Your task to perform on an android device: Go to notification settings Image 0: 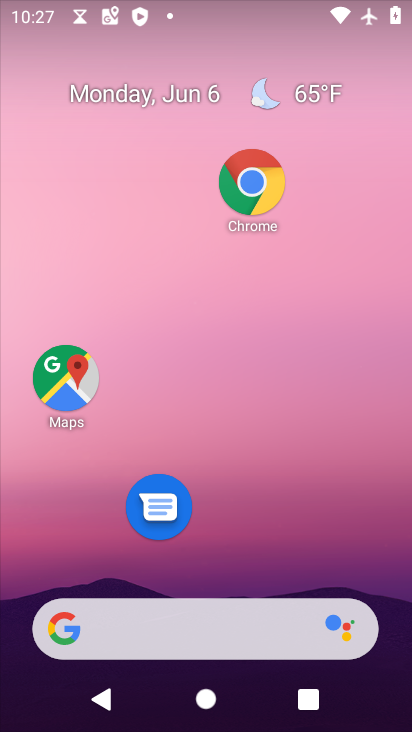
Step 0: drag from (268, 502) to (257, 231)
Your task to perform on an android device: Go to notification settings Image 1: 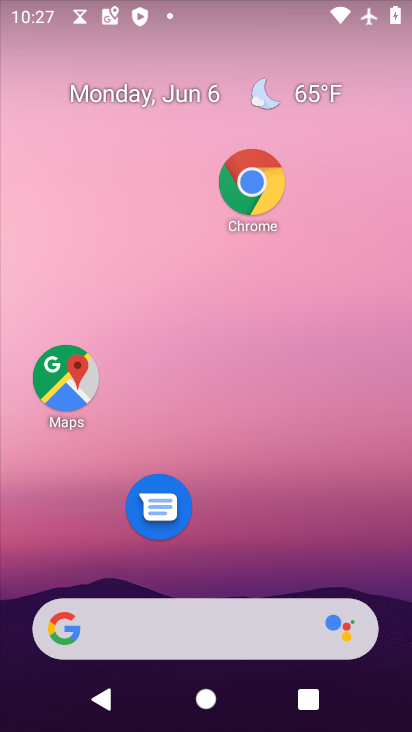
Step 1: drag from (205, 548) to (238, 198)
Your task to perform on an android device: Go to notification settings Image 2: 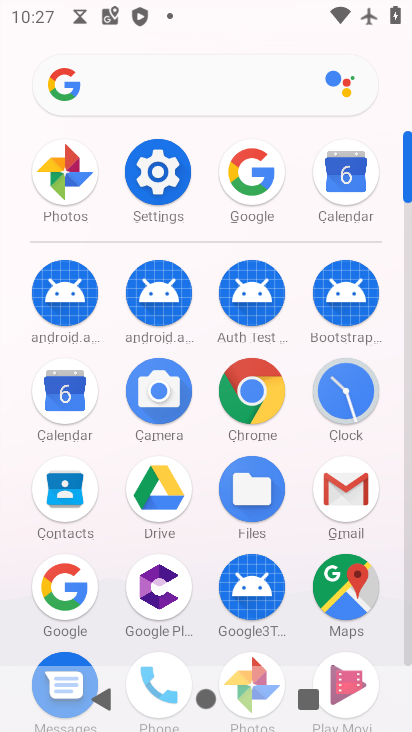
Step 2: click (133, 156)
Your task to perform on an android device: Go to notification settings Image 3: 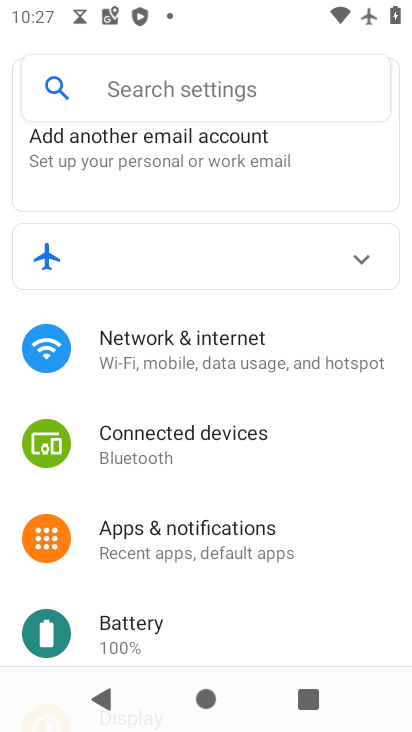
Step 3: click (195, 548)
Your task to perform on an android device: Go to notification settings Image 4: 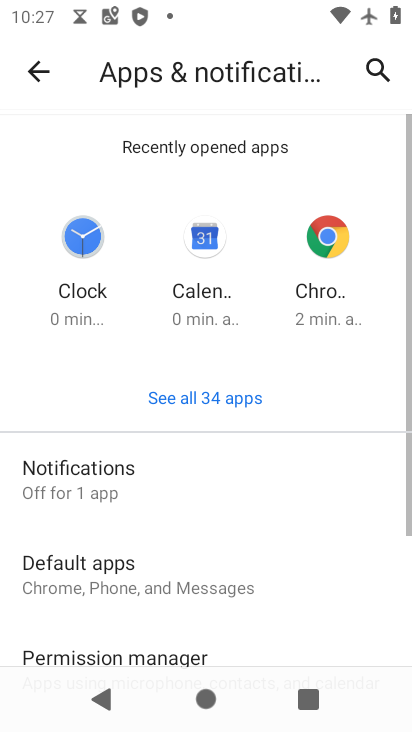
Step 4: click (129, 492)
Your task to perform on an android device: Go to notification settings Image 5: 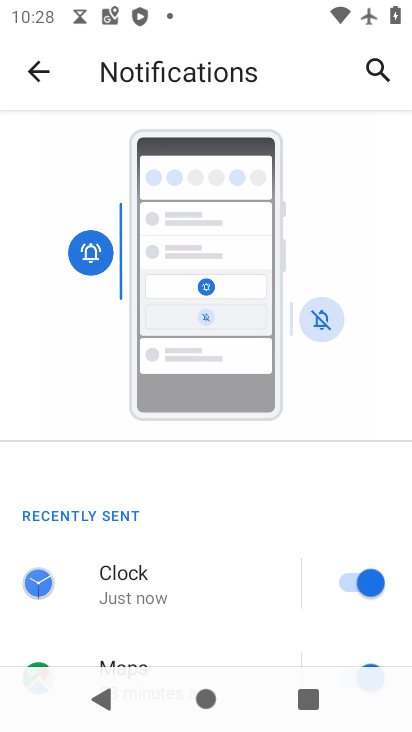
Step 5: task complete